Your task to perform on an android device: Go to accessibility settings Image 0: 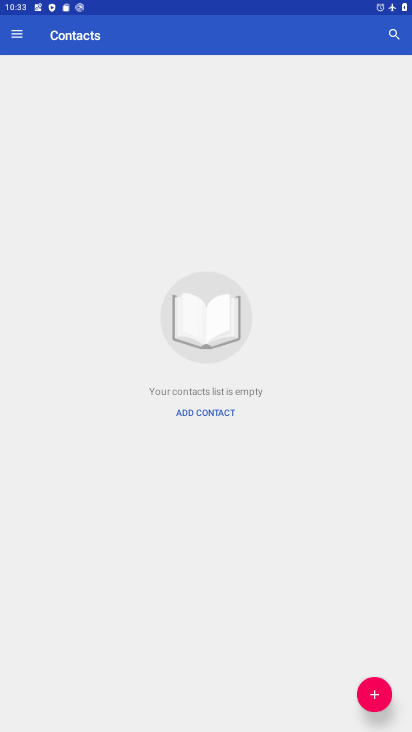
Step 0: press home button
Your task to perform on an android device: Go to accessibility settings Image 1: 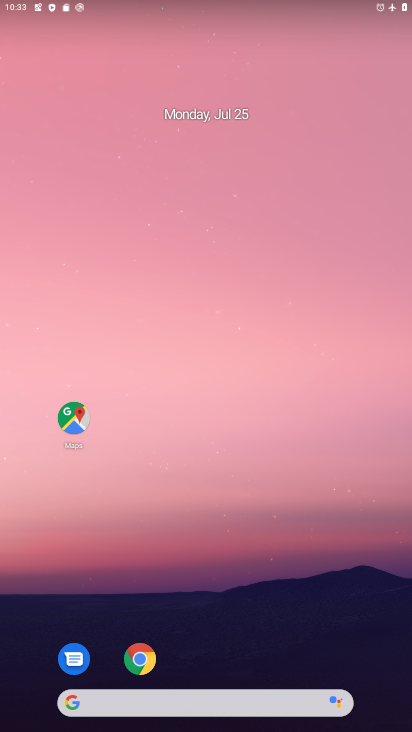
Step 1: drag from (200, 675) to (242, 16)
Your task to perform on an android device: Go to accessibility settings Image 2: 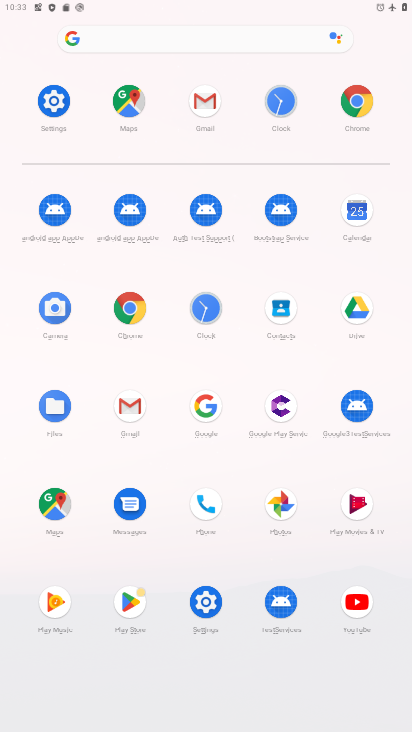
Step 2: click (213, 598)
Your task to perform on an android device: Go to accessibility settings Image 3: 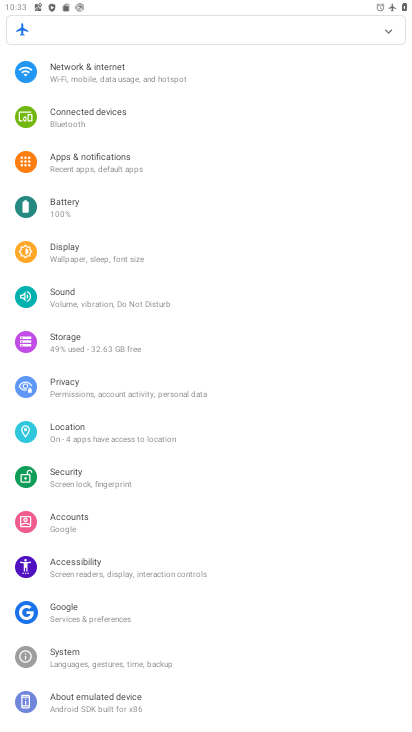
Step 3: click (83, 552)
Your task to perform on an android device: Go to accessibility settings Image 4: 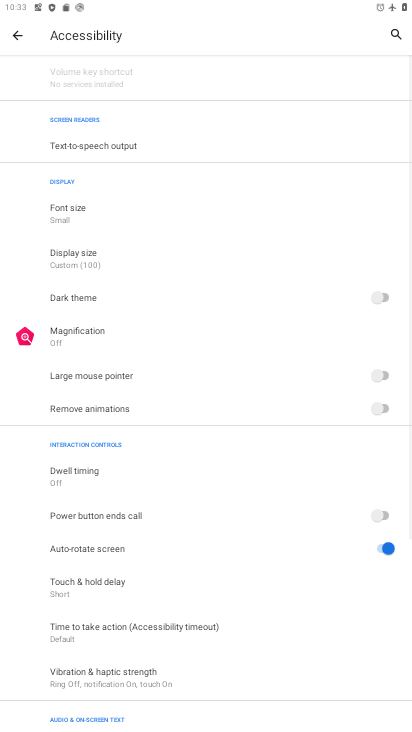
Step 4: task complete